Your task to perform on an android device: Search for a 3d printer on aliexpress Image 0: 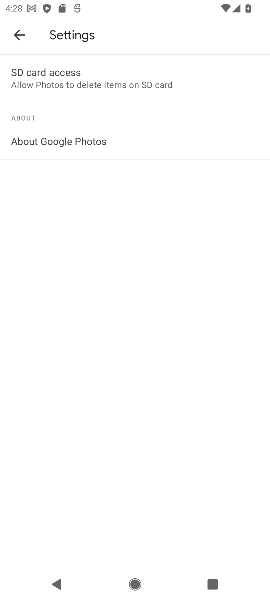
Step 0: press home button
Your task to perform on an android device: Search for a 3d printer on aliexpress Image 1: 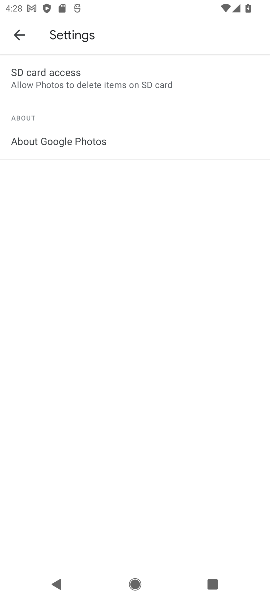
Step 1: press home button
Your task to perform on an android device: Search for a 3d printer on aliexpress Image 2: 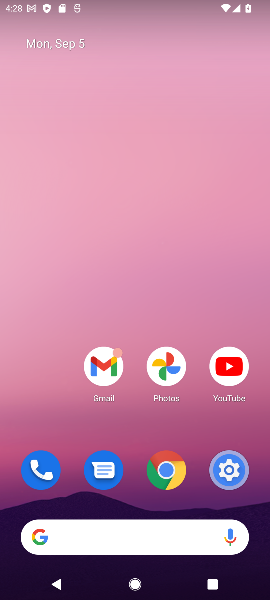
Step 2: click (134, 546)
Your task to perform on an android device: Search for a 3d printer on aliexpress Image 3: 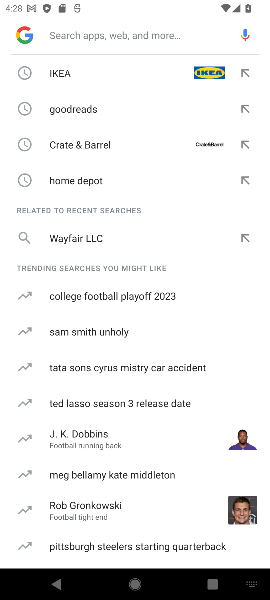
Step 3: click (94, 34)
Your task to perform on an android device: Search for a 3d printer on aliexpress Image 4: 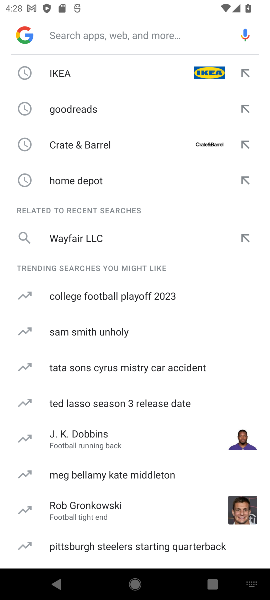
Step 4: type "aliexpress"
Your task to perform on an android device: Search for a 3d printer on aliexpress Image 5: 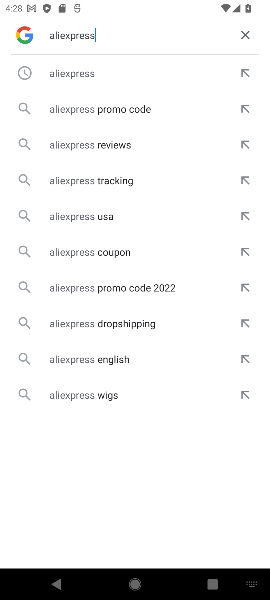
Step 5: click (100, 65)
Your task to perform on an android device: Search for a 3d printer on aliexpress Image 6: 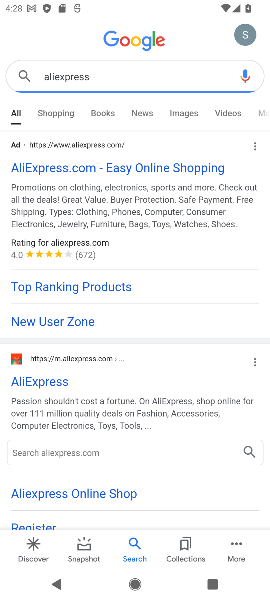
Step 6: click (62, 365)
Your task to perform on an android device: Search for a 3d printer on aliexpress Image 7: 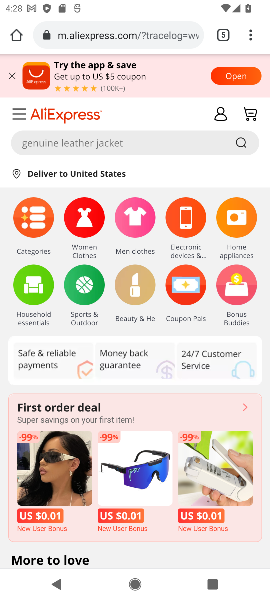
Step 7: click (96, 138)
Your task to perform on an android device: Search for a 3d printer on aliexpress Image 8: 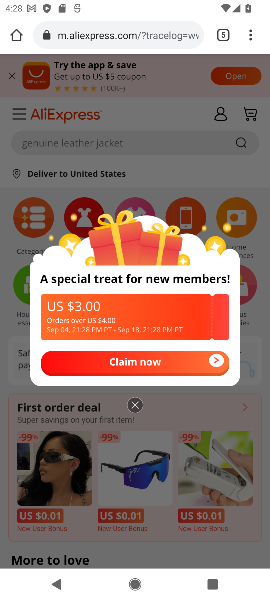
Step 8: click (134, 408)
Your task to perform on an android device: Search for a 3d printer on aliexpress Image 9: 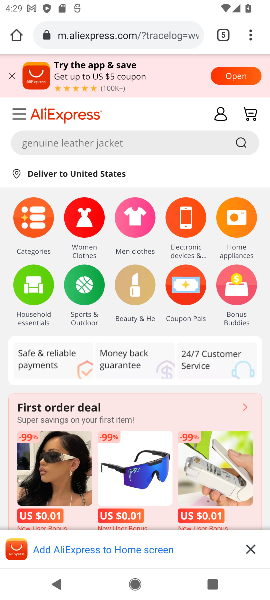
Step 9: click (58, 135)
Your task to perform on an android device: Search for a 3d printer on aliexpress Image 10: 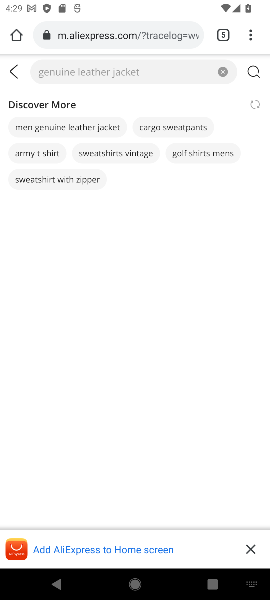
Step 10: click (89, 71)
Your task to perform on an android device: Search for a 3d printer on aliexpress Image 11: 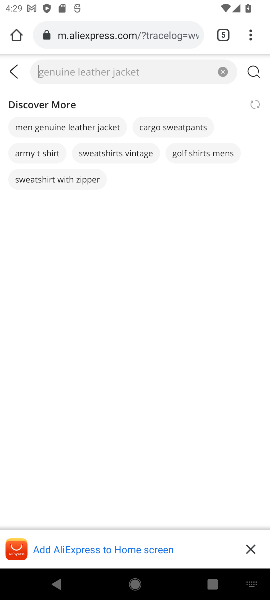
Step 11: type "3 d printer"
Your task to perform on an android device: Search for a 3d printer on aliexpress Image 12: 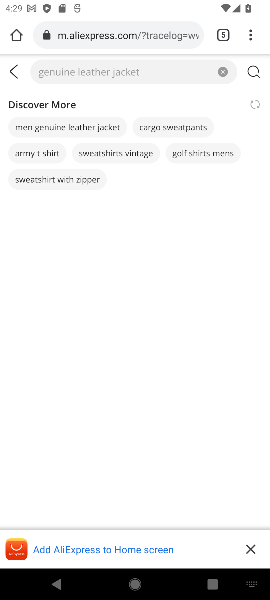
Step 12: type ""
Your task to perform on an android device: Search for a 3d printer on aliexpress Image 13: 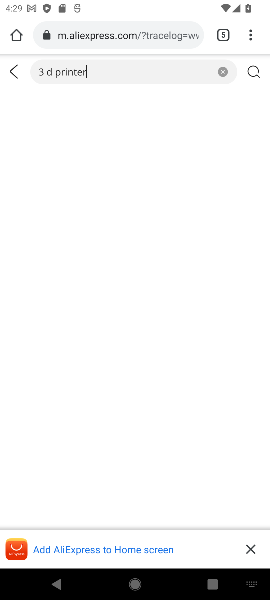
Step 13: type ""
Your task to perform on an android device: Search for a 3d printer on aliexpress Image 14: 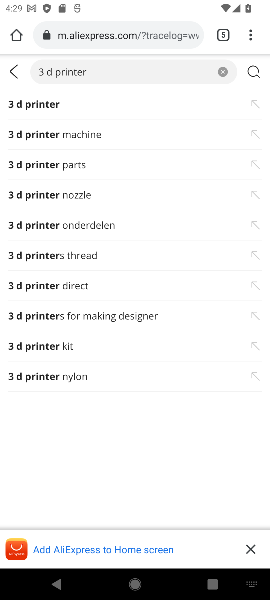
Step 14: press enter
Your task to perform on an android device: Search for a 3d printer on aliexpress Image 15: 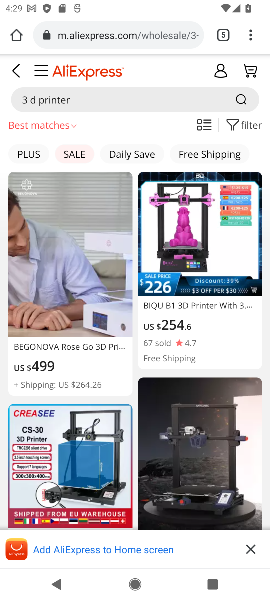
Step 15: drag from (118, 122) to (159, 51)
Your task to perform on an android device: Search for a 3d printer on aliexpress Image 16: 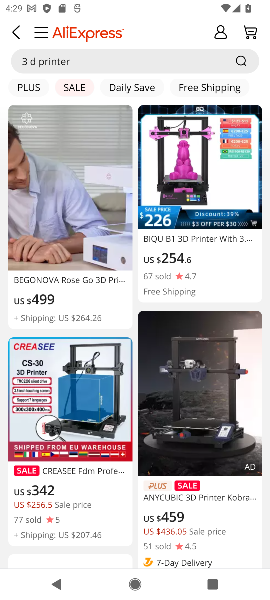
Step 16: drag from (132, 335) to (148, 71)
Your task to perform on an android device: Search for a 3d printer on aliexpress Image 17: 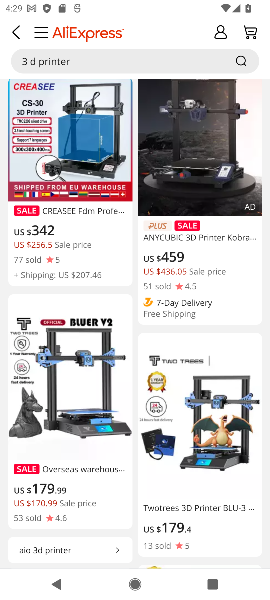
Step 17: drag from (131, 287) to (136, 89)
Your task to perform on an android device: Search for a 3d printer on aliexpress Image 18: 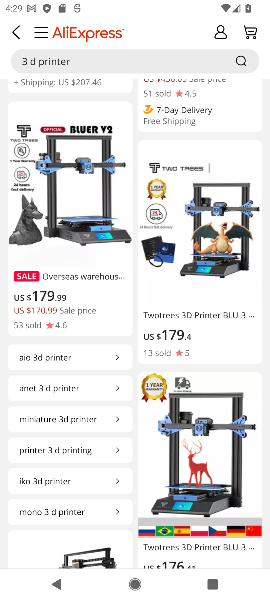
Step 18: drag from (127, 304) to (115, 588)
Your task to perform on an android device: Search for a 3d printer on aliexpress Image 19: 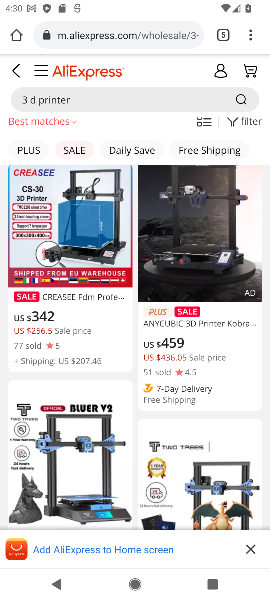
Step 19: drag from (114, 119) to (82, 566)
Your task to perform on an android device: Search for a 3d printer on aliexpress Image 20: 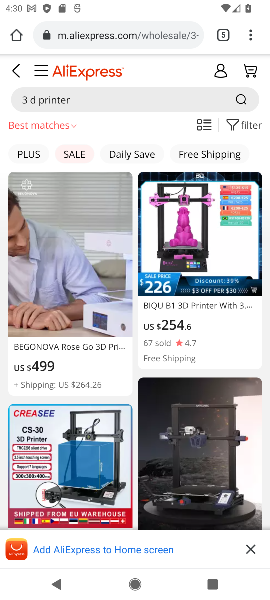
Step 20: drag from (112, 164) to (98, 263)
Your task to perform on an android device: Search for a 3d printer on aliexpress Image 21: 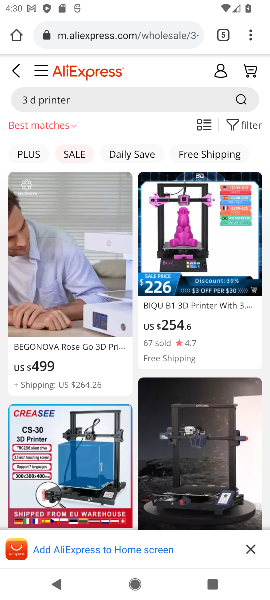
Step 21: drag from (124, 133) to (142, 298)
Your task to perform on an android device: Search for a 3d printer on aliexpress Image 22: 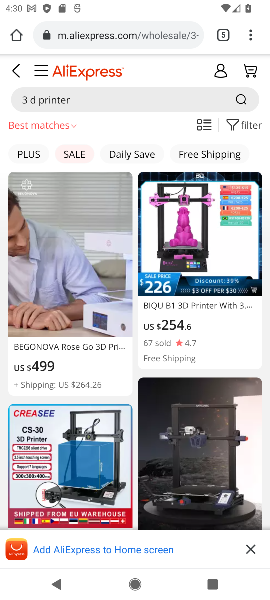
Step 22: click (135, 122)
Your task to perform on an android device: Search for a 3d printer on aliexpress Image 23: 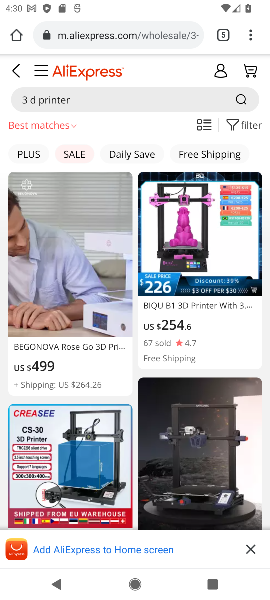
Step 23: task complete